Your task to perform on an android device: Open Reddit.com Image 0: 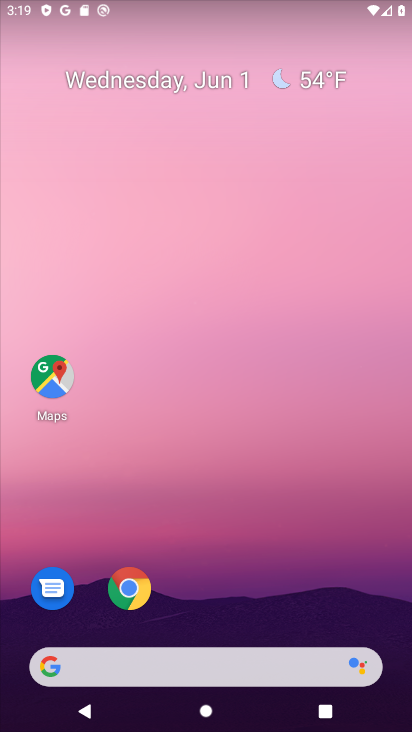
Step 0: click (128, 593)
Your task to perform on an android device: Open Reddit.com Image 1: 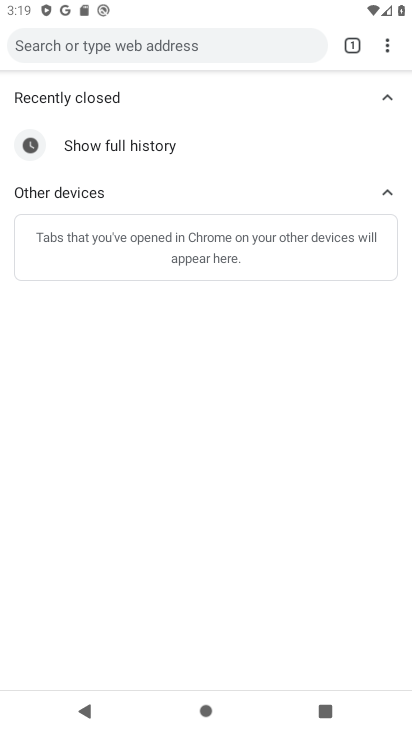
Step 1: click (142, 49)
Your task to perform on an android device: Open Reddit.com Image 2: 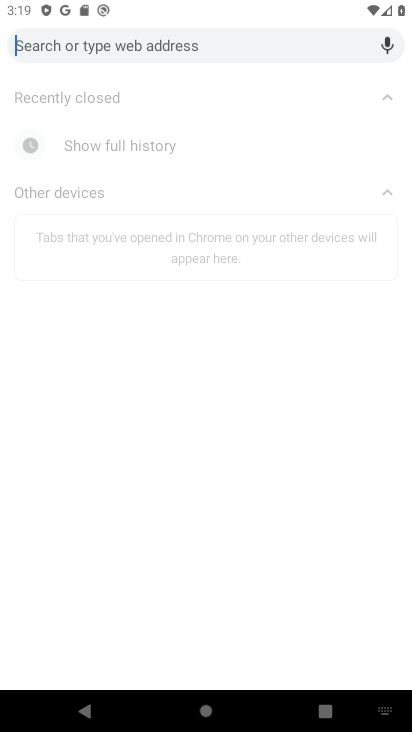
Step 2: type "Reddit.com"
Your task to perform on an android device: Open Reddit.com Image 3: 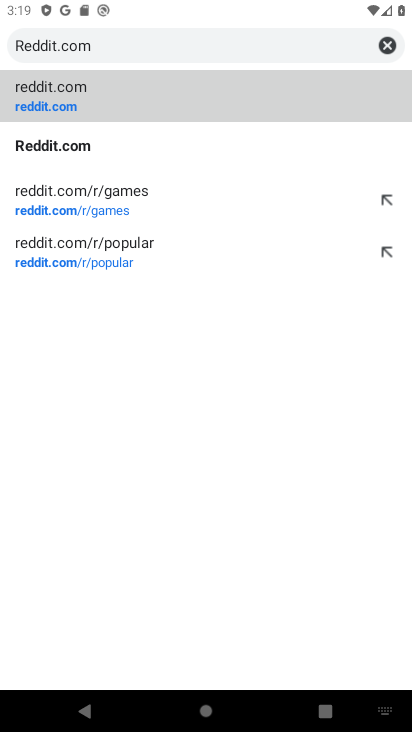
Step 3: click (87, 150)
Your task to perform on an android device: Open Reddit.com Image 4: 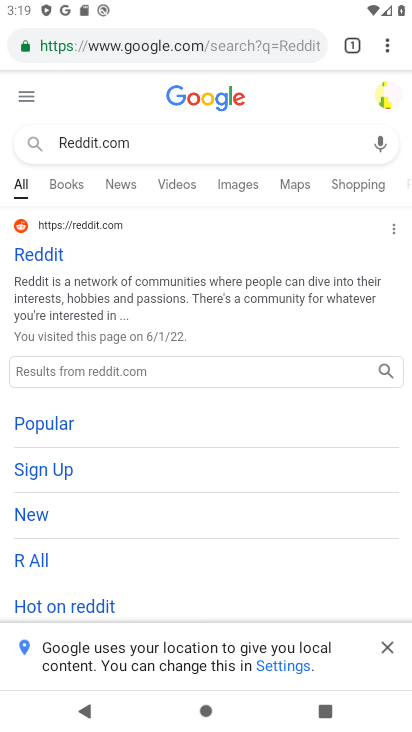
Step 4: task complete